Your task to perform on an android device: Go to Yahoo.com Image 0: 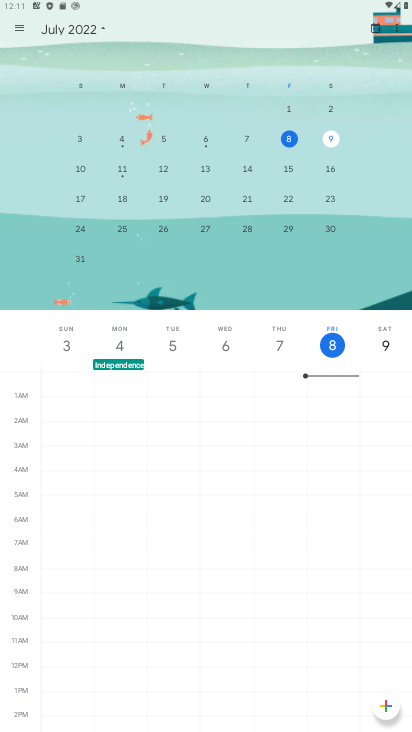
Step 0: press home button
Your task to perform on an android device: Go to Yahoo.com Image 1: 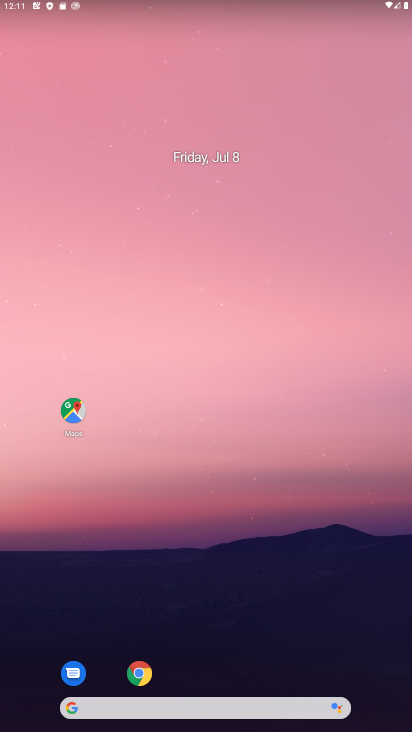
Step 1: click (138, 673)
Your task to perform on an android device: Go to Yahoo.com Image 2: 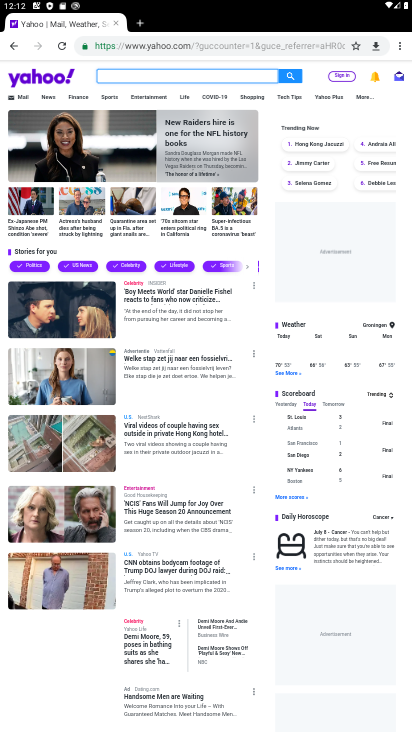
Step 2: click (250, 41)
Your task to perform on an android device: Go to Yahoo.com Image 3: 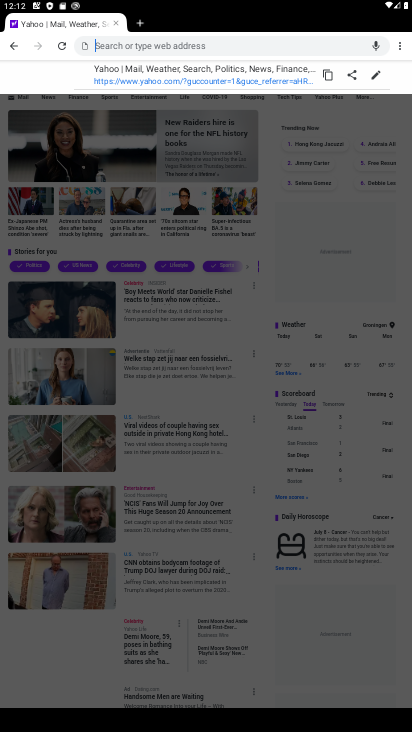
Step 3: type "Yahoo.com"
Your task to perform on an android device: Go to Yahoo.com Image 4: 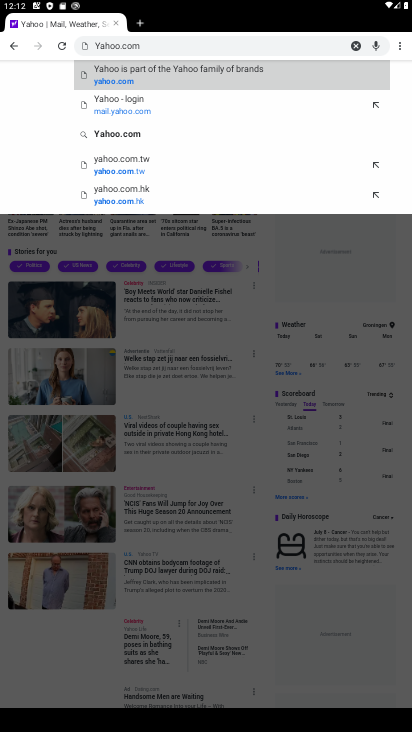
Step 4: click (144, 137)
Your task to perform on an android device: Go to Yahoo.com Image 5: 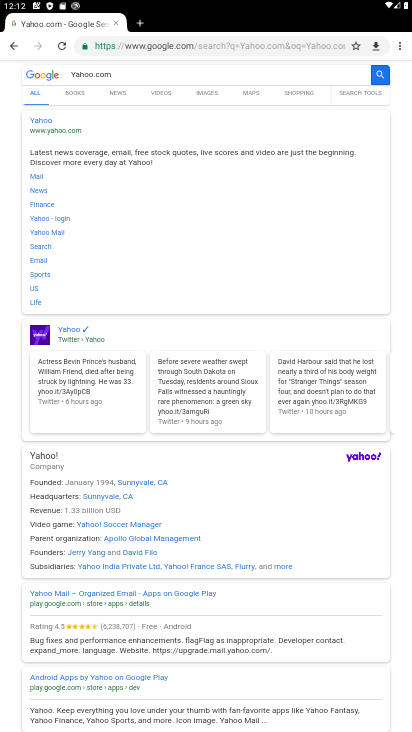
Step 5: click (53, 134)
Your task to perform on an android device: Go to Yahoo.com Image 6: 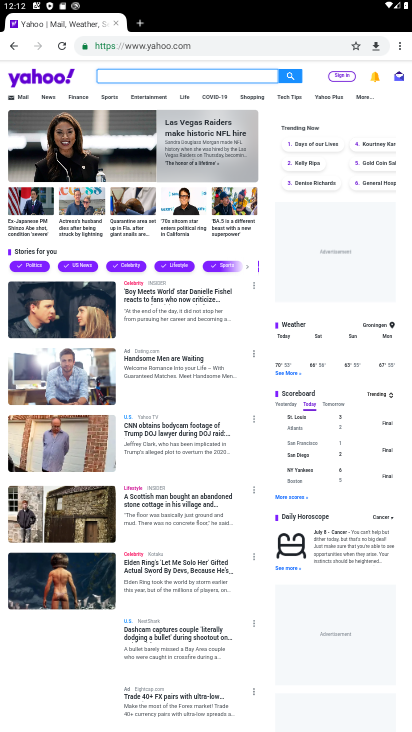
Step 6: task complete